Your task to perform on an android device: Add "razer naga" to the cart on target Image 0: 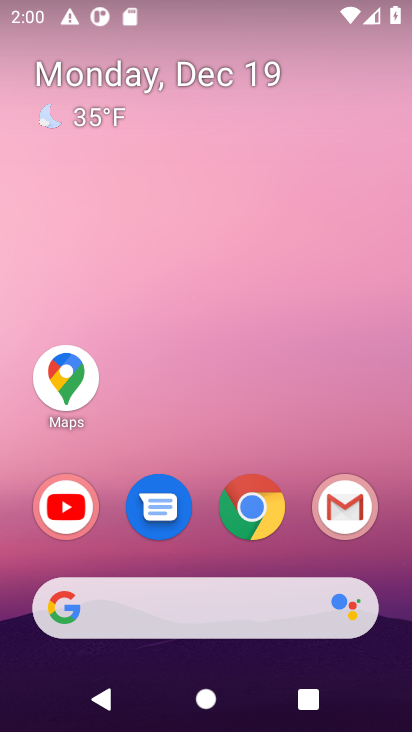
Step 0: click (254, 511)
Your task to perform on an android device: Add "razer naga" to the cart on target Image 1: 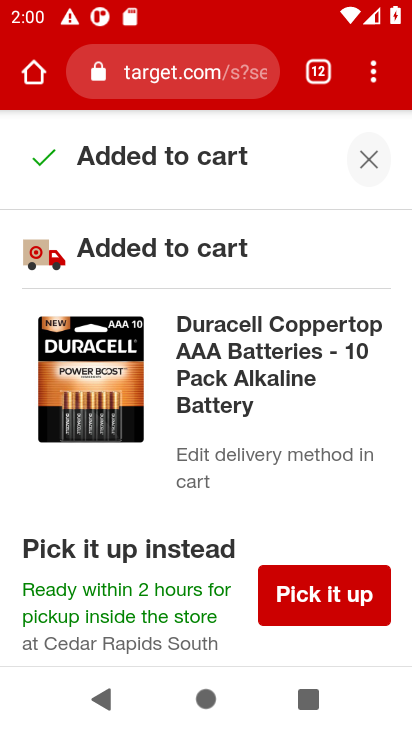
Step 1: click (368, 162)
Your task to perform on an android device: Add "razer naga" to the cart on target Image 2: 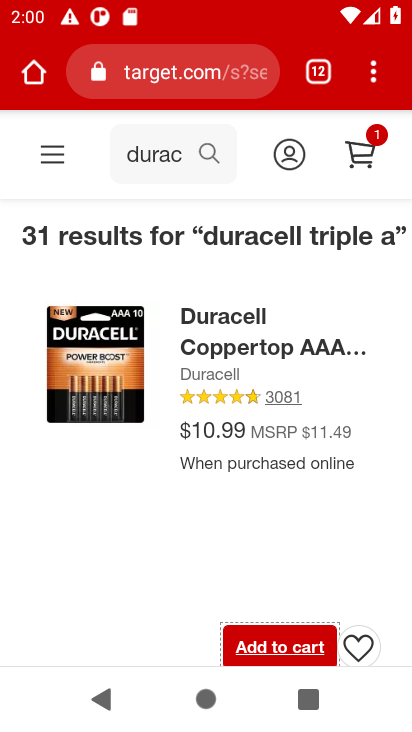
Step 2: click (136, 157)
Your task to perform on an android device: Add "razer naga" to the cart on target Image 3: 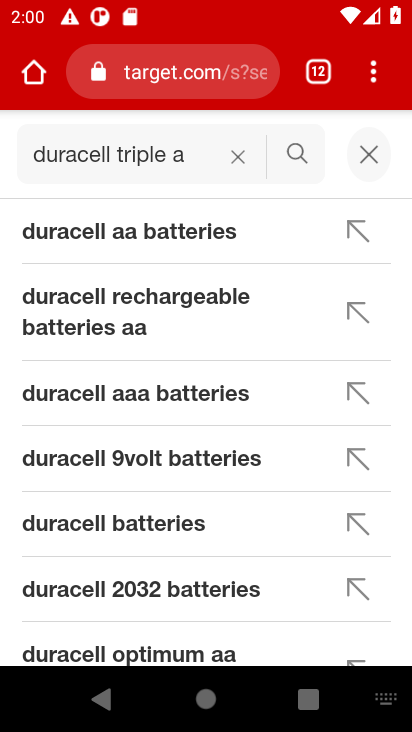
Step 3: click (234, 159)
Your task to perform on an android device: Add "razer naga" to the cart on target Image 4: 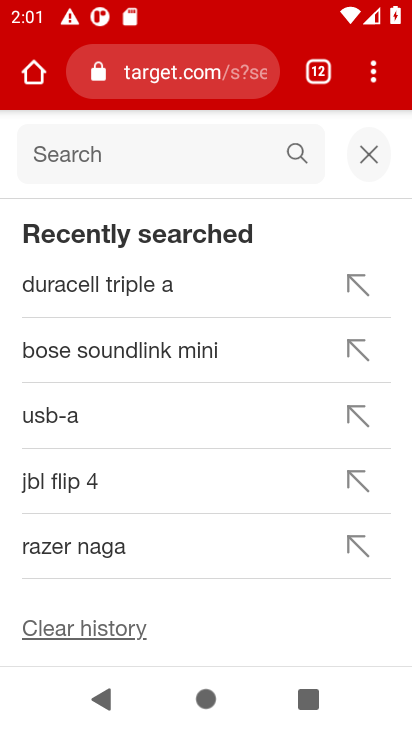
Step 4: click (66, 154)
Your task to perform on an android device: Add "razer naga" to the cart on target Image 5: 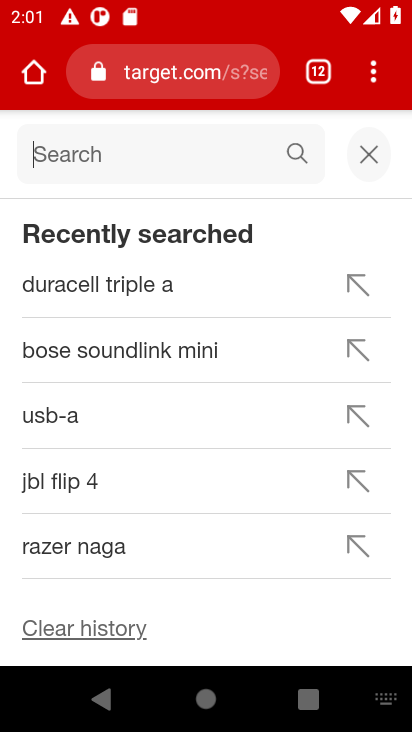
Step 5: type "razer naga"
Your task to perform on an android device: Add "razer naga" to the cart on target Image 6: 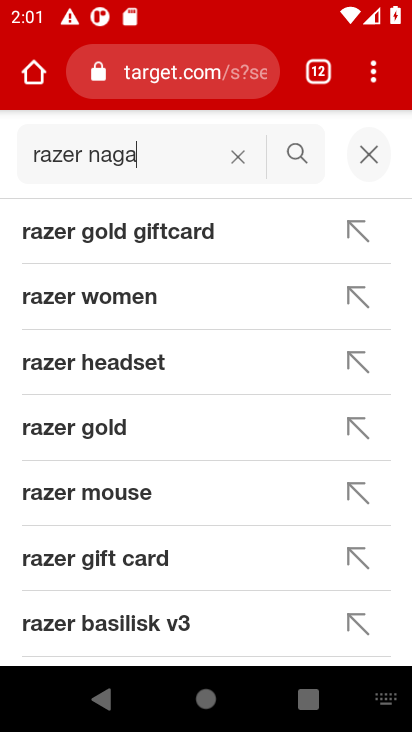
Step 6: click (295, 148)
Your task to perform on an android device: Add "razer naga" to the cart on target Image 7: 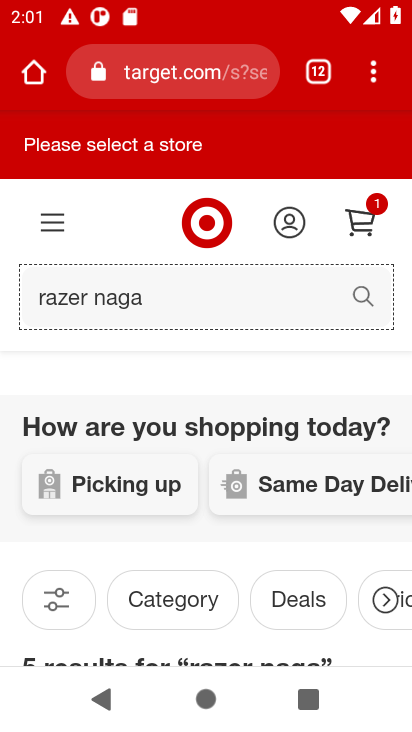
Step 7: task complete